Your task to perform on an android device: Go to Amazon Image 0: 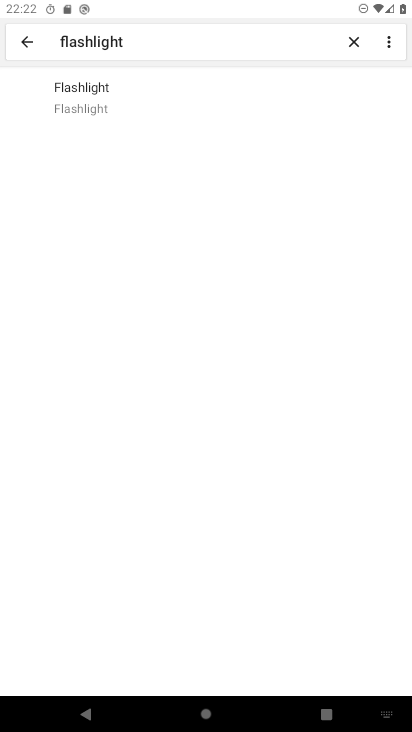
Step 0: press home button
Your task to perform on an android device: Go to Amazon Image 1: 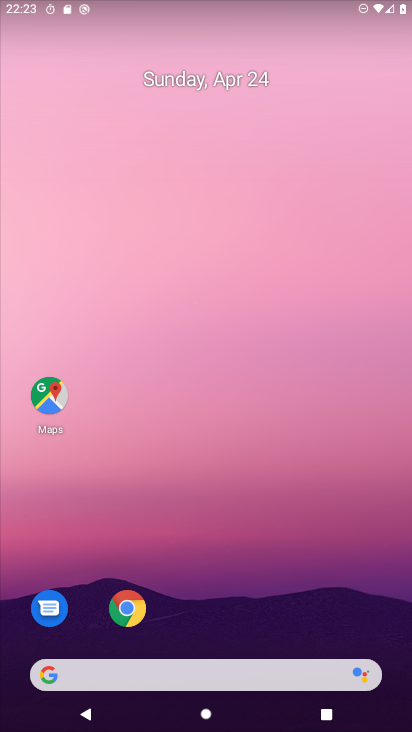
Step 1: click (123, 605)
Your task to perform on an android device: Go to Amazon Image 2: 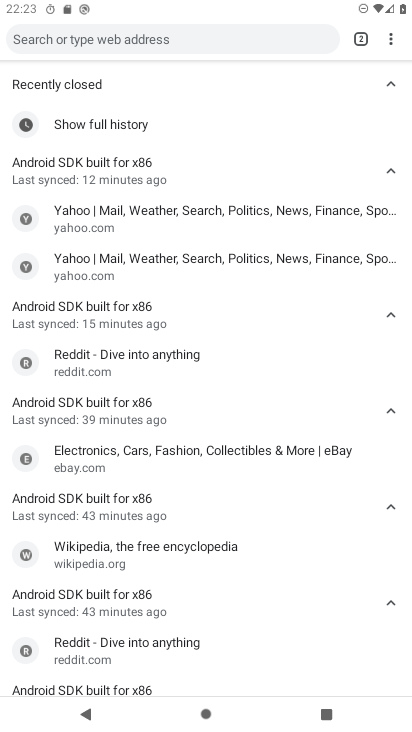
Step 2: press back button
Your task to perform on an android device: Go to Amazon Image 3: 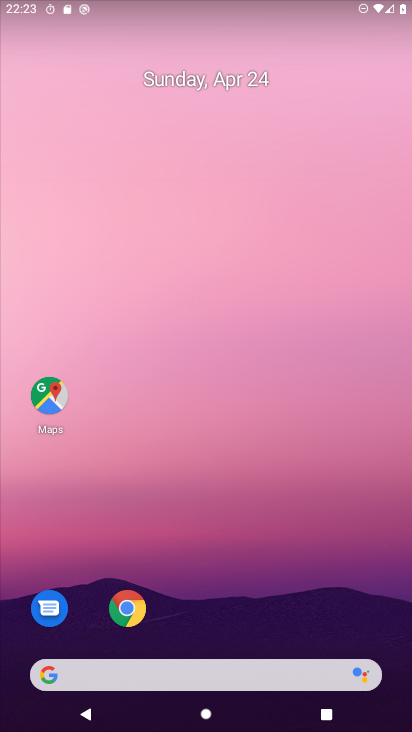
Step 3: click (126, 609)
Your task to perform on an android device: Go to Amazon Image 4: 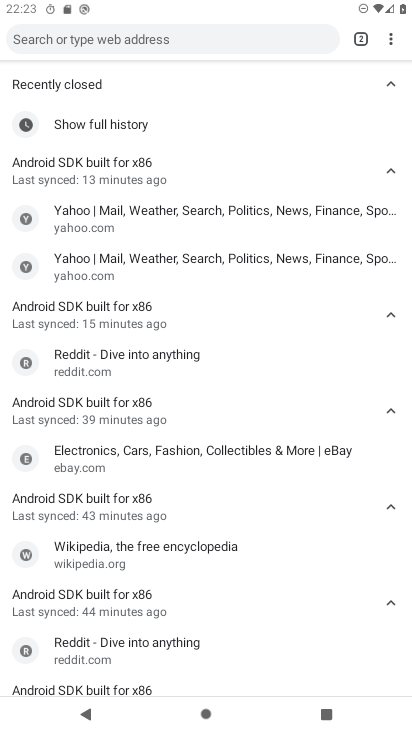
Step 4: click (390, 35)
Your task to perform on an android device: Go to Amazon Image 5: 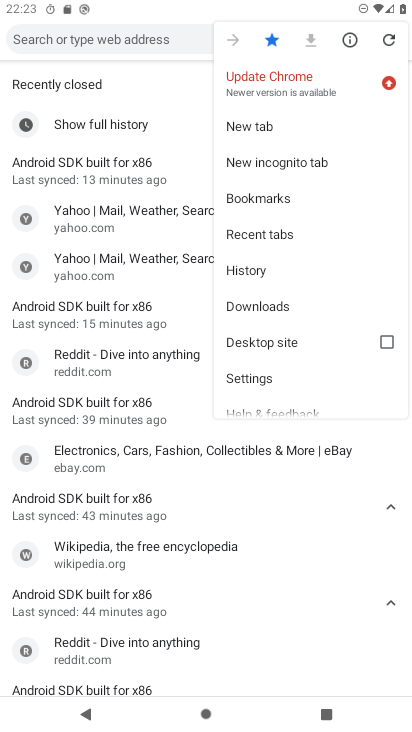
Step 5: click (307, 128)
Your task to perform on an android device: Go to Amazon Image 6: 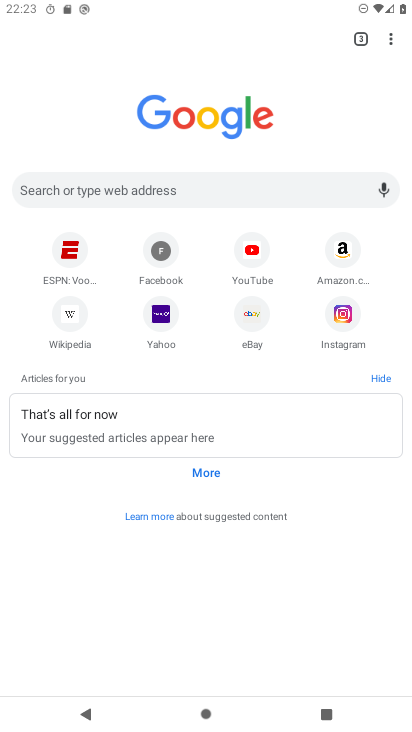
Step 6: click (338, 243)
Your task to perform on an android device: Go to Amazon Image 7: 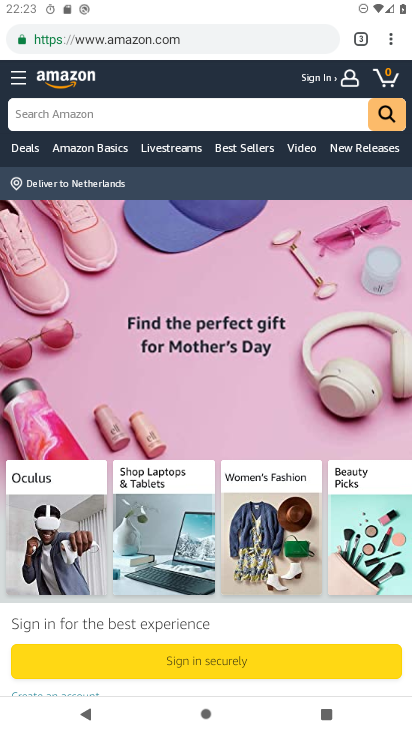
Step 7: task complete